Your task to perform on an android device: toggle priority inbox in the gmail app Image 0: 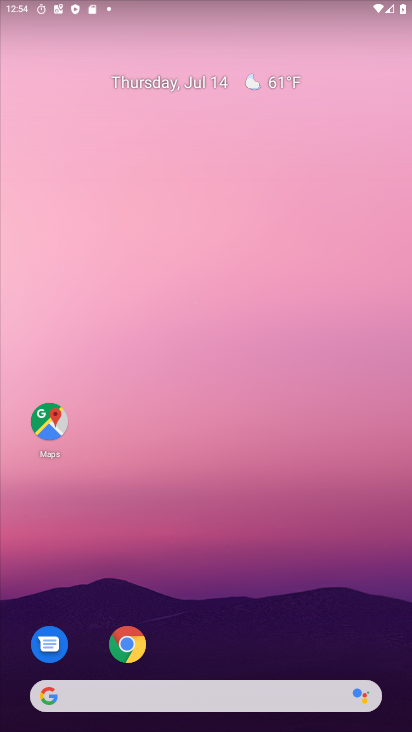
Step 0: drag from (214, 563) to (228, 226)
Your task to perform on an android device: toggle priority inbox in the gmail app Image 1: 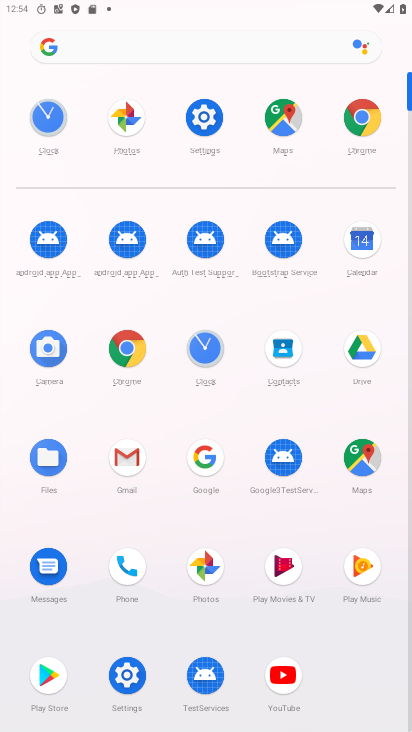
Step 1: click (176, 409)
Your task to perform on an android device: toggle priority inbox in the gmail app Image 2: 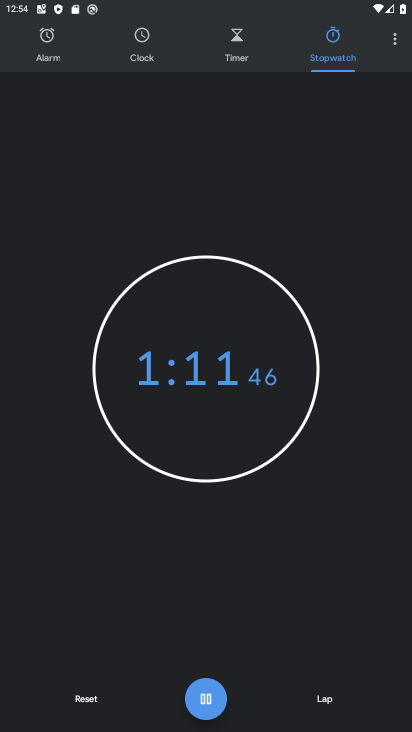
Step 2: press home button
Your task to perform on an android device: toggle priority inbox in the gmail app Image 3: 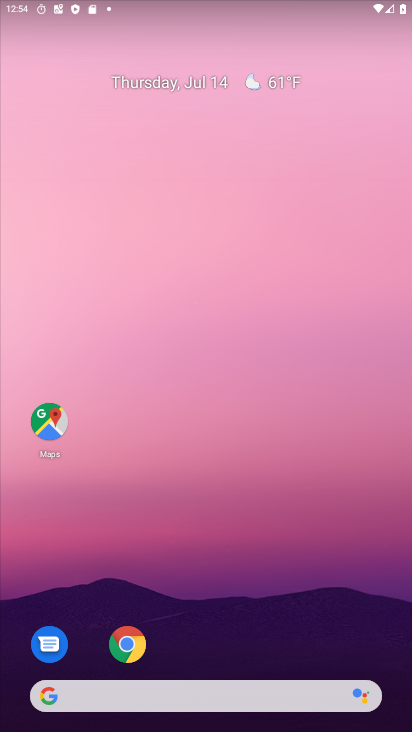
Step 3: drag from (274, 618) to (137, 0)
Your task to perform on an android device: toggle priority inbox in the gmail app Image 4: 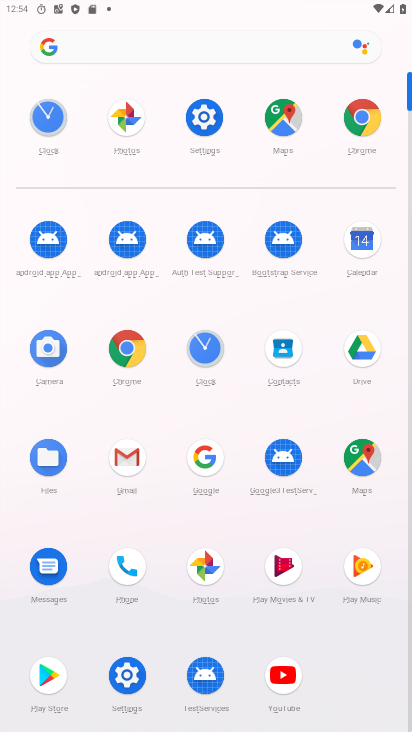
Step 4: click (118, 500)
Your task to perform on an android device: toggle priority inbox in the gmail app Image 5: 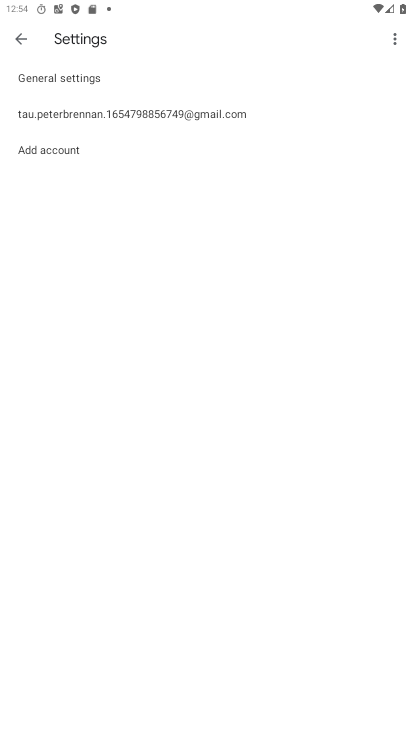
Step 5: click (131, 127)
Your task to perform on an android device: toggle priority inbox in the gmail app Image 6: 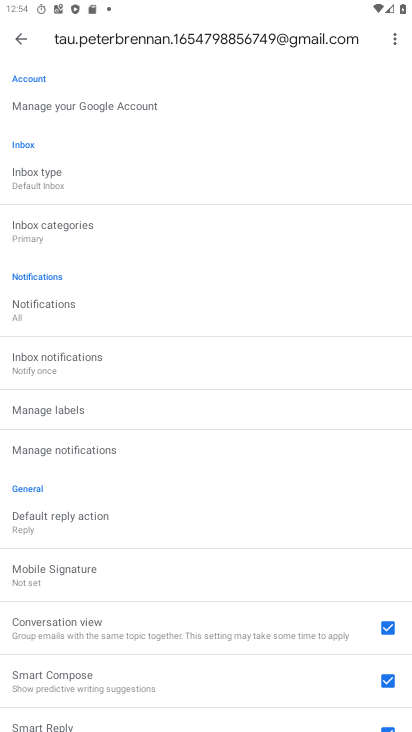
Step 6: drag from (132, 272) to (197, 731)
Your task to perform on an android device: toggle priority inbox in the gmail app Image 7: 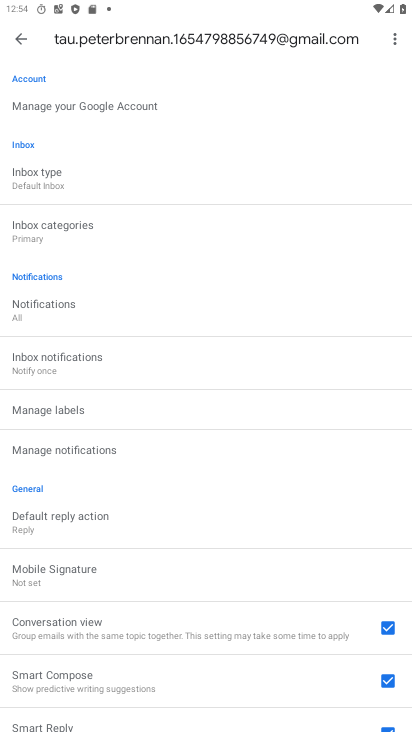
Step 7: click (64, 195)
Your task to perform on an android device: toggle priority inbox in the gmail app Image 8: 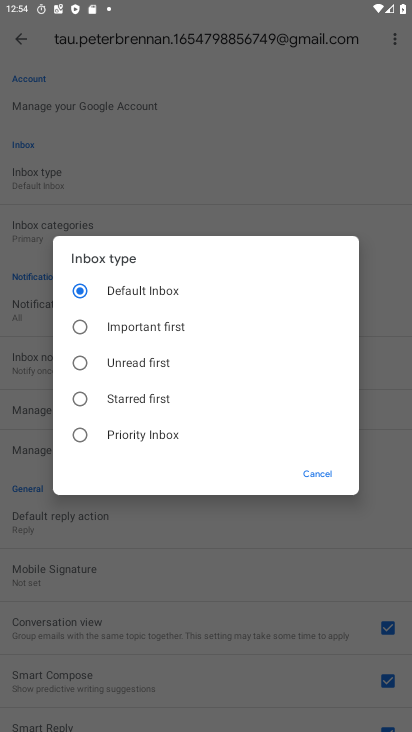
Step 8: click (72, 430)
Your task to perform on an android device: toggle priority inbox in the gmail app Image 9: 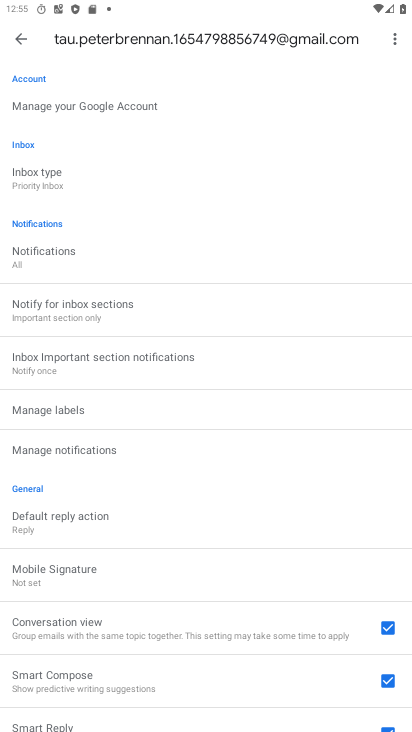
Step 9: task complete